Your task to perform on an android device: toggle improve location accuracy Image 0: 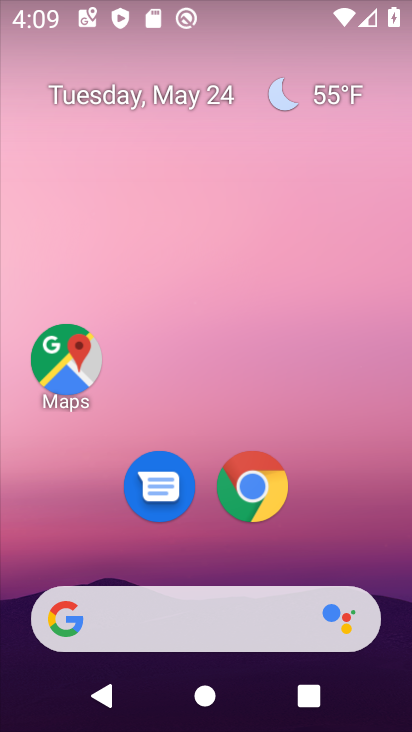
Step 0: click (331, 547)
Your task to perform on an android device: toggle improve location accuracy Image 1: 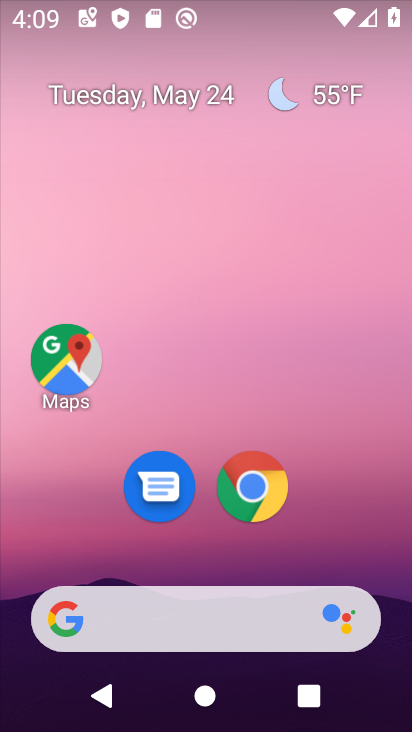
Step 1: drag from (317, 525) to (253, 295)
Your task to perform on an android device: toggle improve location accuracy Image 2: 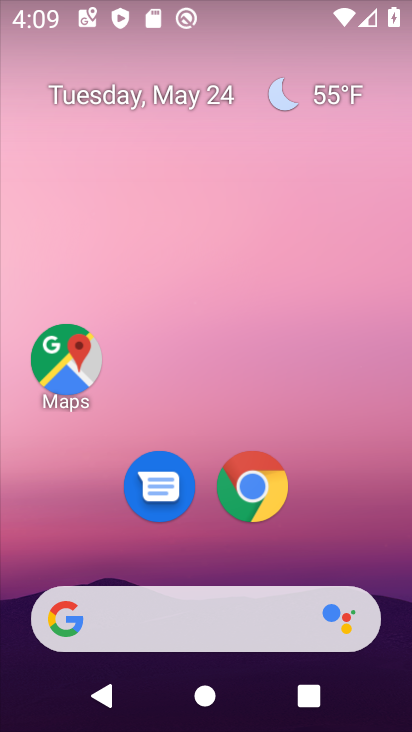
Step 2: drag from (224, 603) to (29, 18)
Your task to perform on an android device: toggle improve location accuracy Image 3: 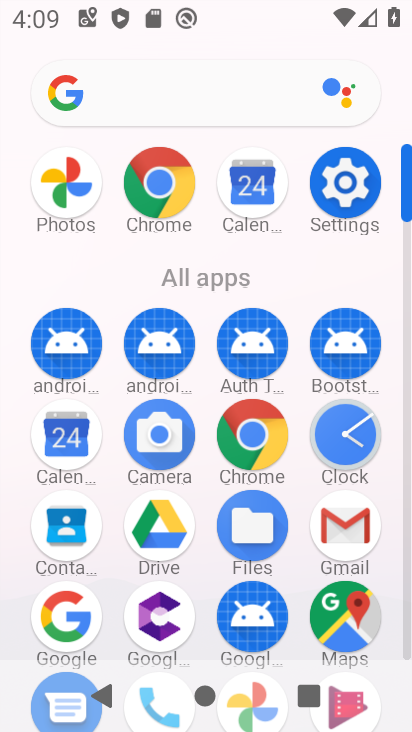
Step 3: click (371, 195)
Your task to perform on an android device: toggle improve location accuracy Image 4: 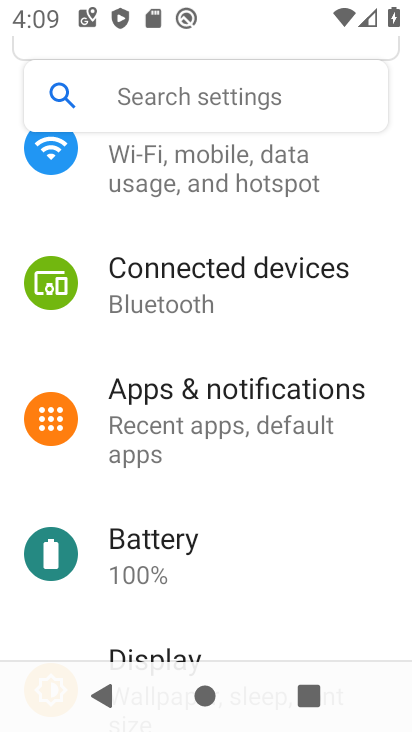
Step 4: drag from (229, 533) to (241, 269)
Your task to perform on an android device: toggle improve location accuracy Image 5: 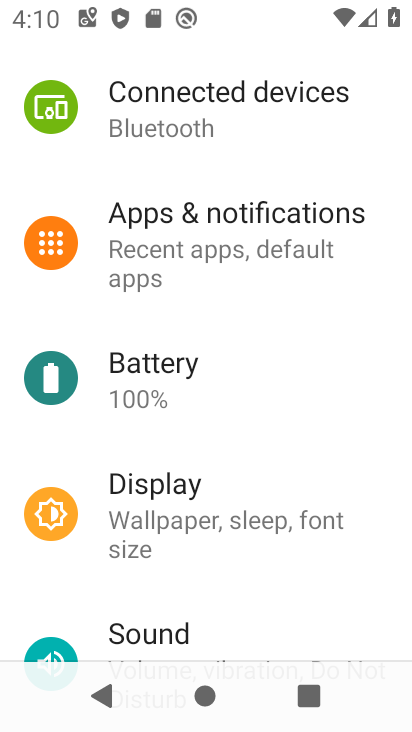
Step 5: drag from (241, 503) to (224, 151)
Your task to perform on an android device: toggle improve location accuracy Image 6: 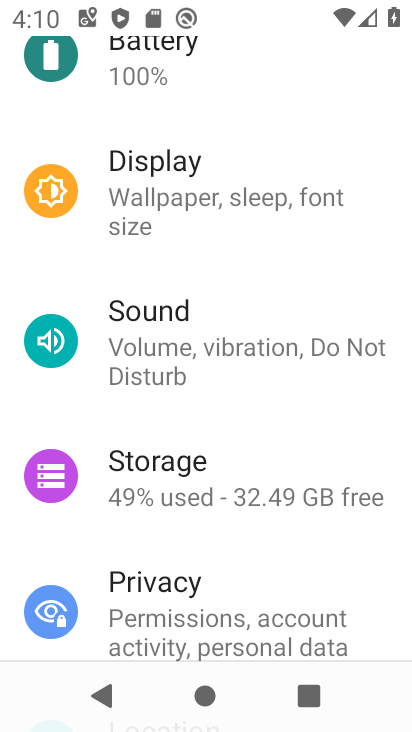
Step 6: drag from (203, 514) to (163, 109)
Your task to perform on an android device: toggle improve location accuracy Image 7: 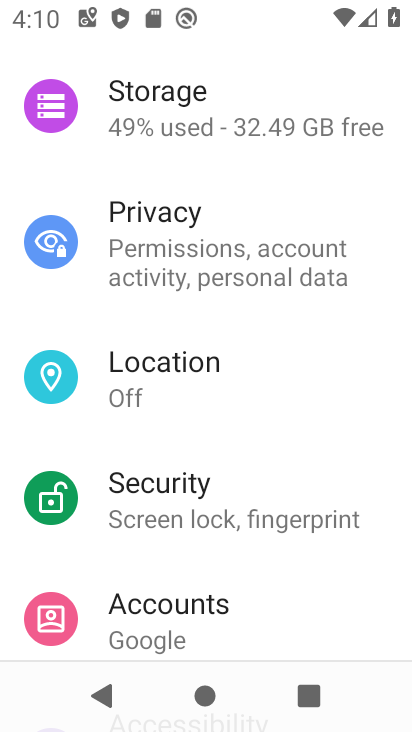
Step 7: click (223, 386)
Your task to perform on an android device: toggle improve location accuracy Image 8: 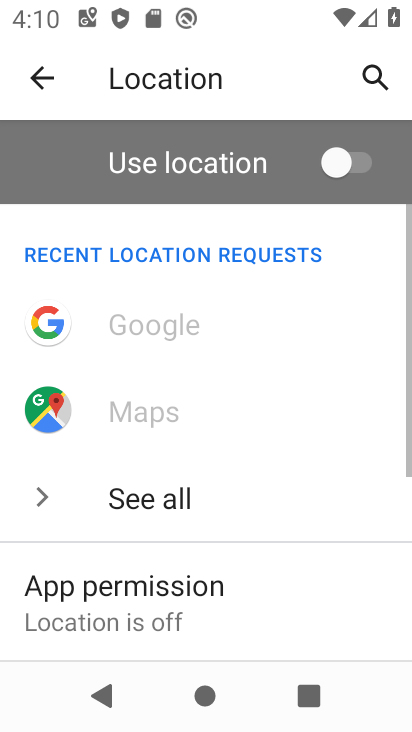
Step 8: drag from (217, 558) to (225, 164)
Your task to perform on an android device: toggle improve location accuracy Image 9: 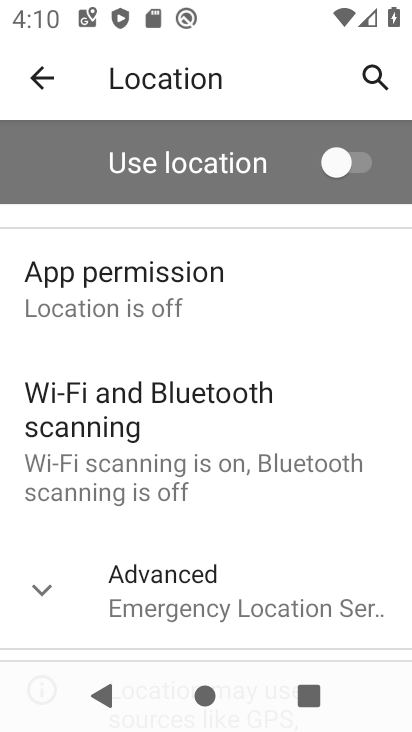
Step 9: click (237, 605)
Your task to perform on an android device: toggle improve location accuracy Image 10: 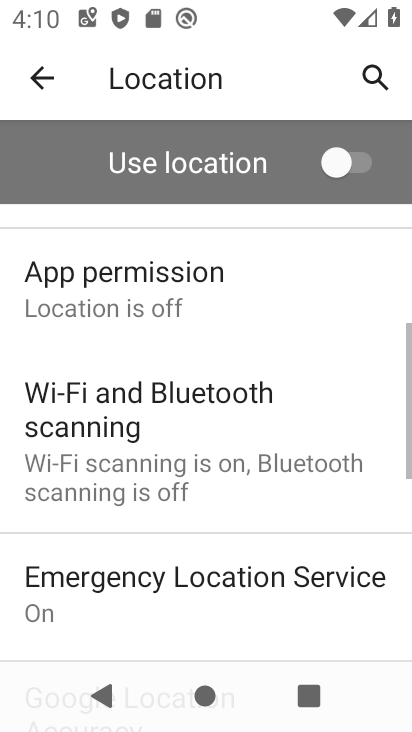
Step 10: drag from (239, 563) to (223, 300)
Your task to perform on an android device: toggle improve location accuracy Image 11: 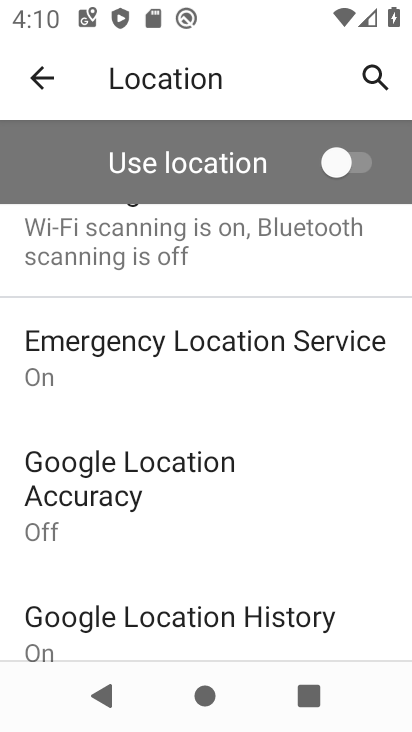
Step 11: drag from (184, 514) to (157, 239)
Your task to perform on an android device: toggle improve location accuracy Image 12: 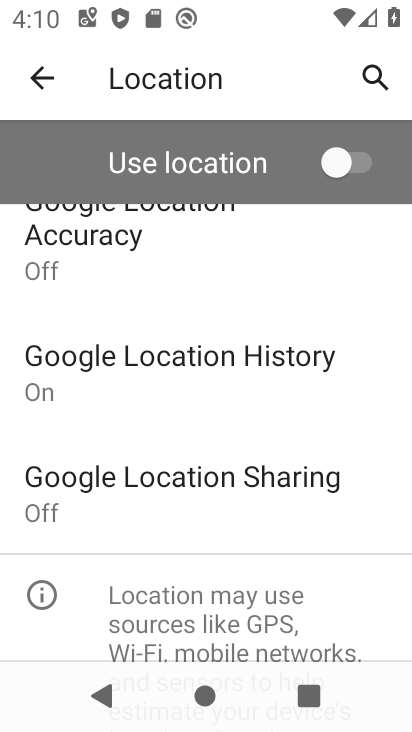
Step 12: click (33, 229)
Your task to perform on an android device: toggle improve location accuracy Image 13: 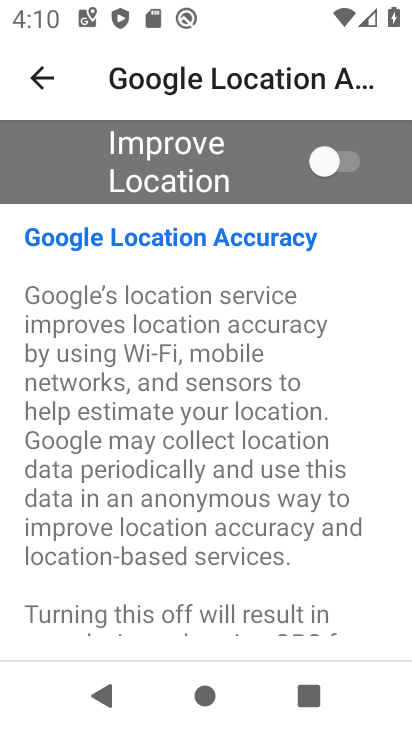
Step 13: click (315, 174)
Your task to perform on an android device: toggle improve location accuracy Image 14: 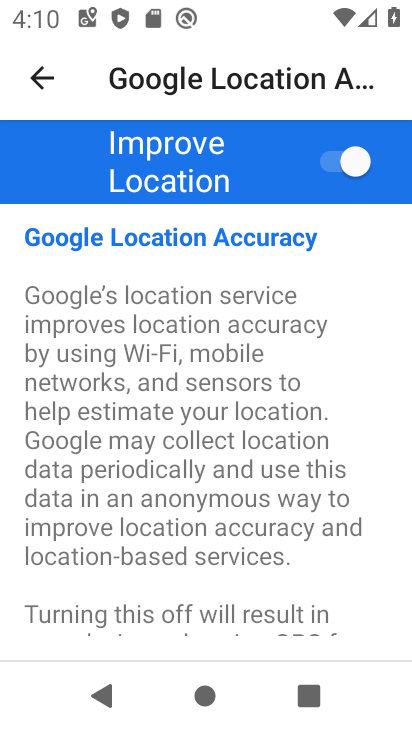
Step 14: task complete